Your task to perform on an android device: Go to CNN.com Image 0: 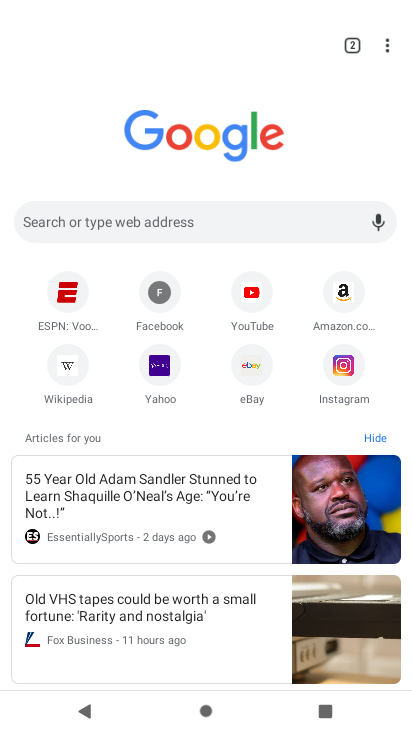
Step 0: drag from (357, 584) to (204, 4)
Your task to perform on an android device: Go to CNN.com Image 1: 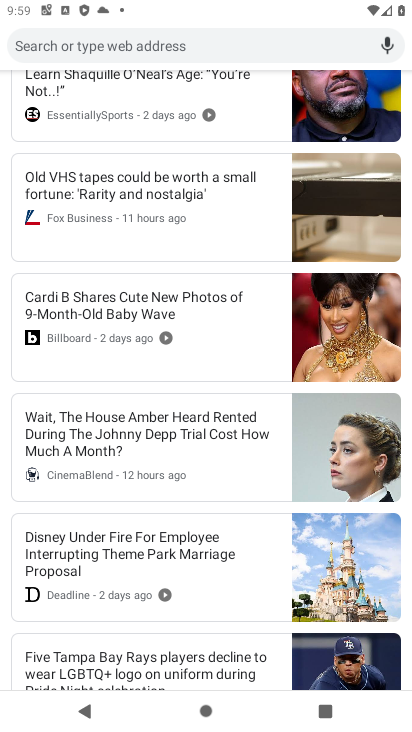
Step 1: drag from (37, 383) to (88, 727)
Your task to perform on an android device: Go to CNN.com Image 2: 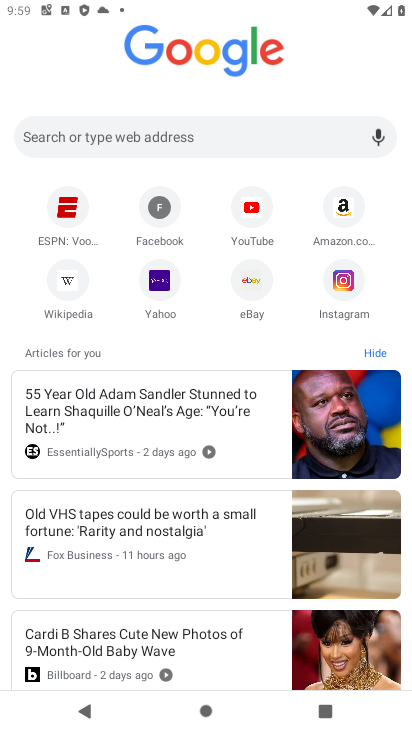
Step 2: click (216, 143)
Your task to perform on an android device: Go to CNN.com Image 3: 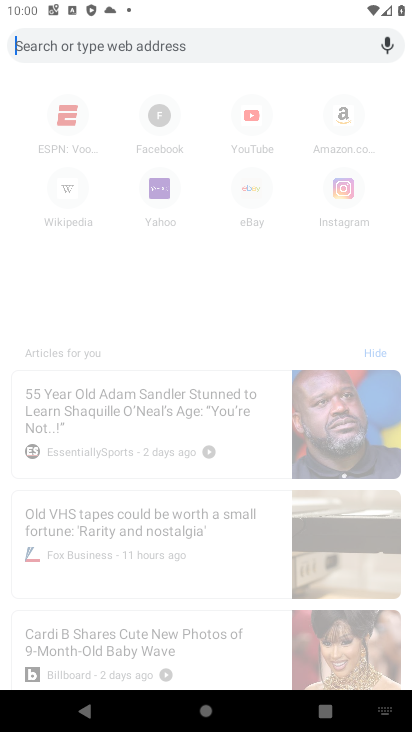
Step 3: type "cnn"
Your task to perform on an android device: Go to CNN.com Image 4: 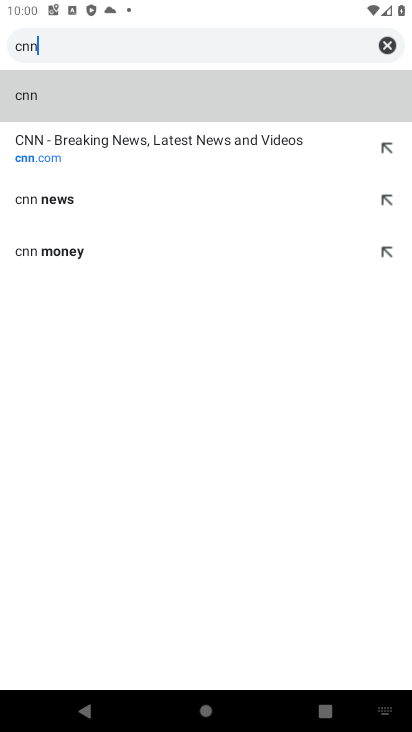
Step 4: click (45, 167)
Your task to perform on an android device: Go to CNN.com Image 5: 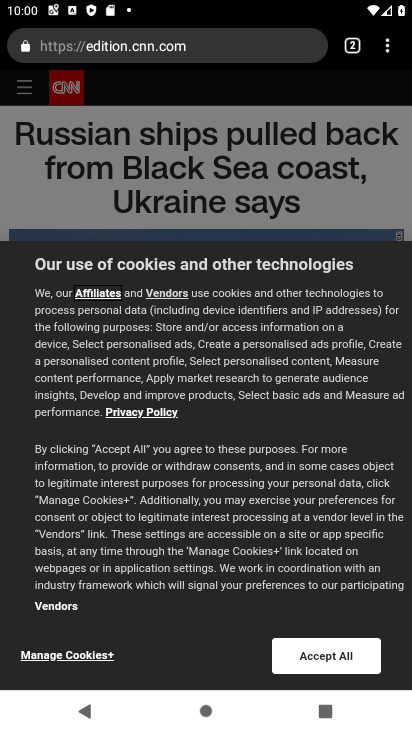
Step 5: task complete